Your task to perform on an android device: check out phone information Image 0: 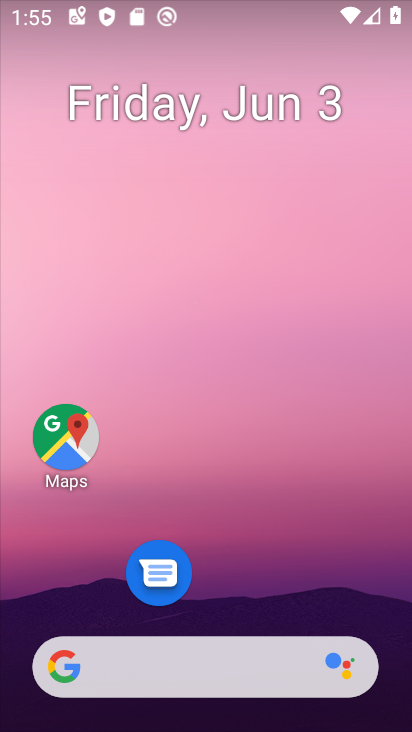
Step 0: drag from (283, 580) to (255, 35)
Your task to perform on an android device: check out phone information Image 1: 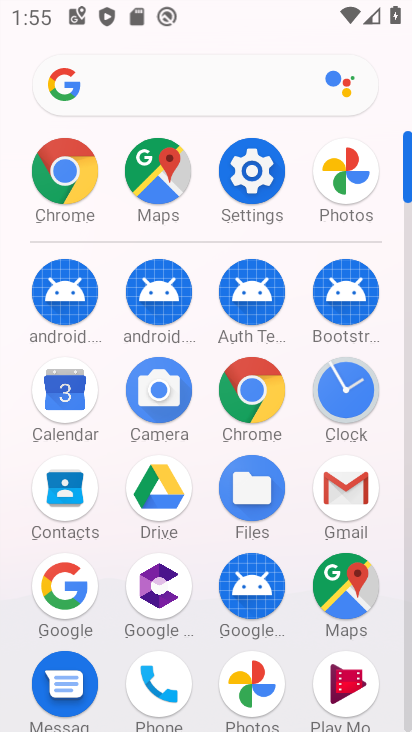
Step 1: drag from (284, 696) to (321, 260)
Your task to perform on an android device: check out phone information Image 2: 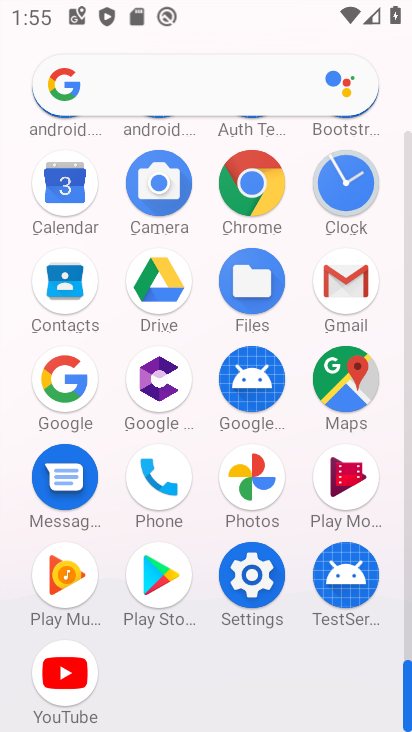
Step 2: click (258, 597)
Your task to perform on an android device: check out phone information Image 3: 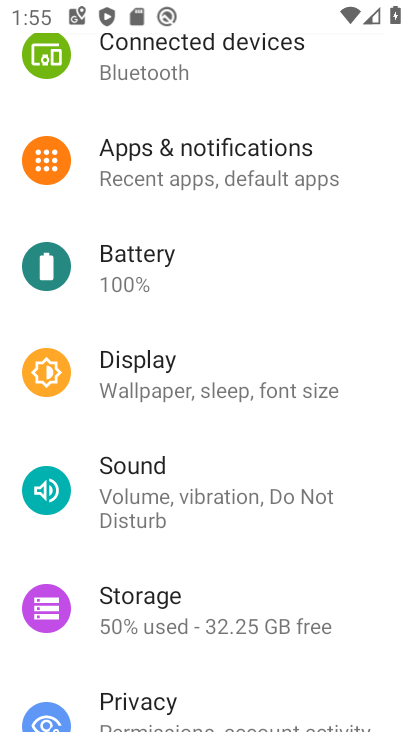
Step 3: drag from (208, 629) to (223, 95)
Your task to perform on an android device: check out phone information Image 4: 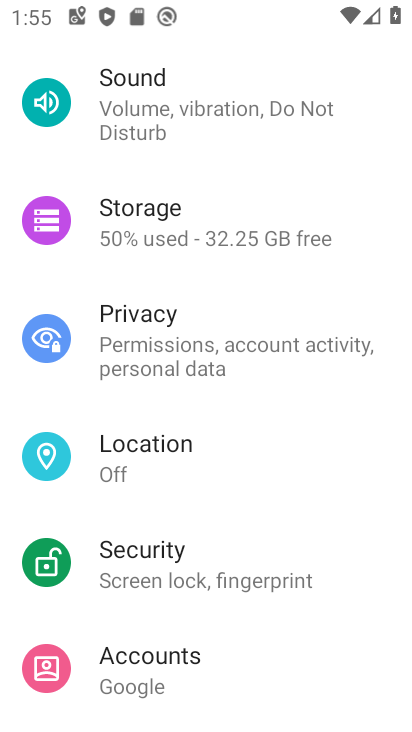
Step 4: drag from (218, 598) to (240, 113)
Your task to perform on an android device: check out phone information Image 5: 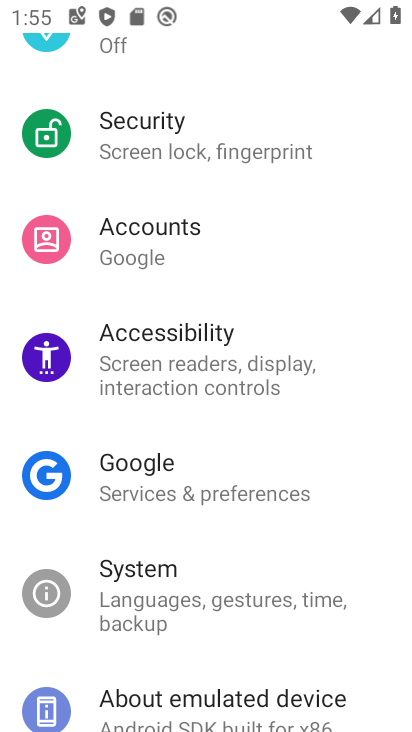
Step 5: click (232, 709)
Your task to perform on an android device: check out phone information Image 6: 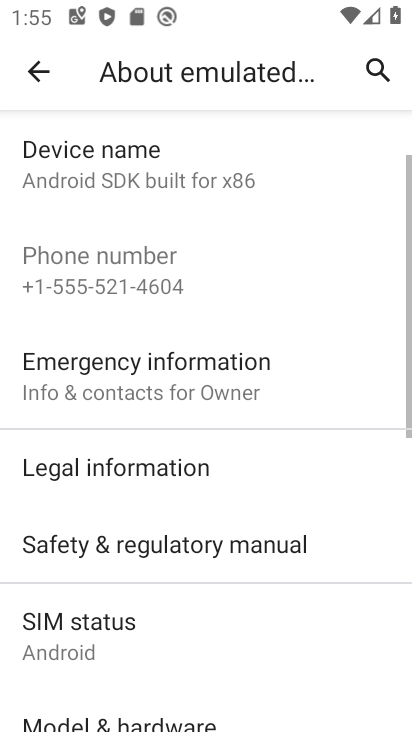
Step 6: task complete